Your task to perform on an android device: turn off notifications in google photos Image 0: 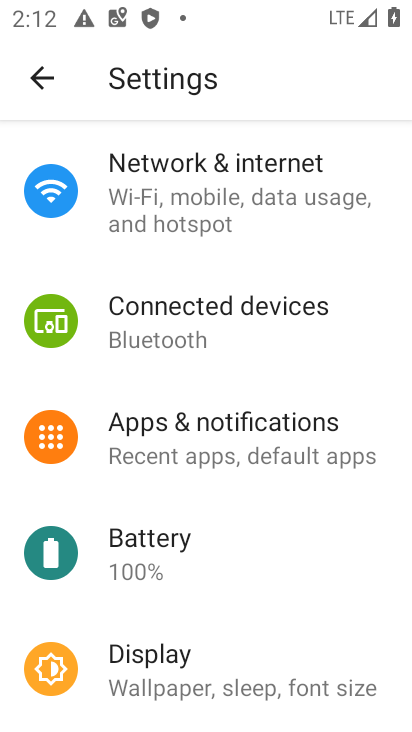
Step 0: press home button
Your task to perform on an android device: turn off notifications in google photos Image 1: 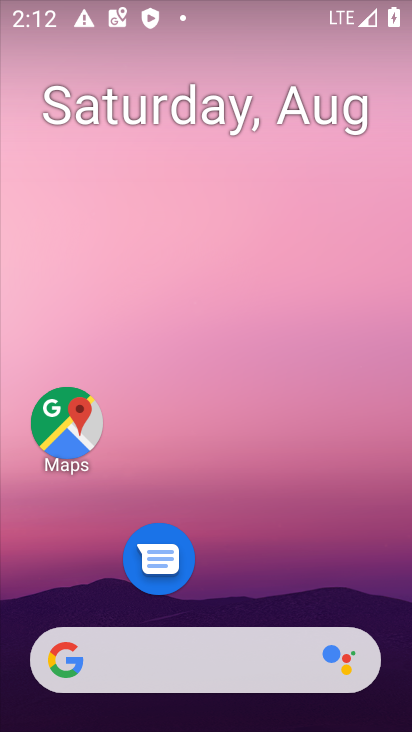
Step 1: drag from (223, 624) to (207, 470)
Your task to perform on an android device: turn off notifications in google photos Image 2: 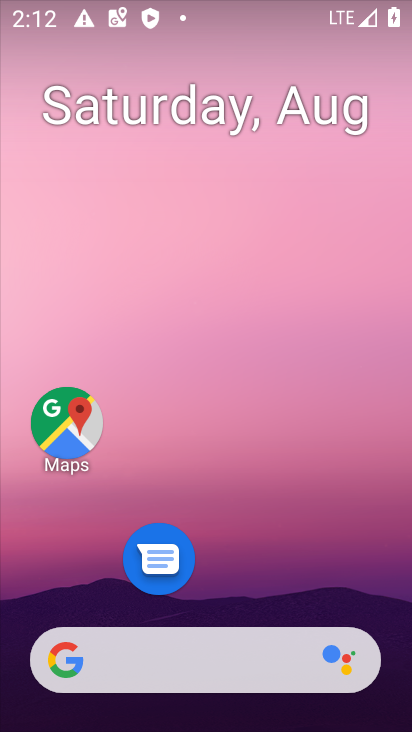
Step 2: drag from (206, 604) to (100, 83)
Your task to perform on an android device: turn off notifications in google photos Image 3: 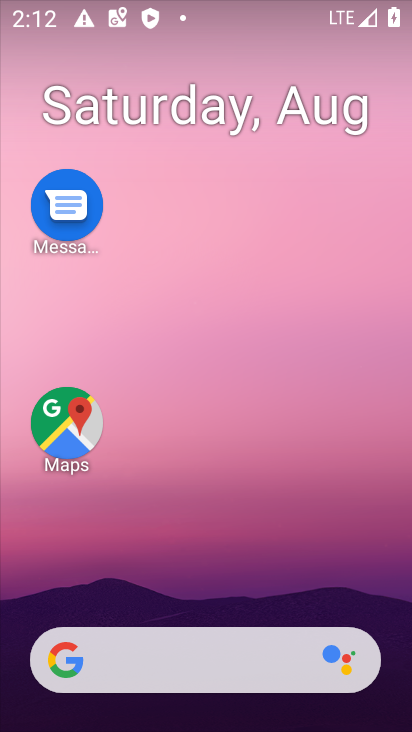
Step 3: drag from (297, 612) to (209, 119)
Your task to perform on an android device: turn off notifications in google photos Image 4: 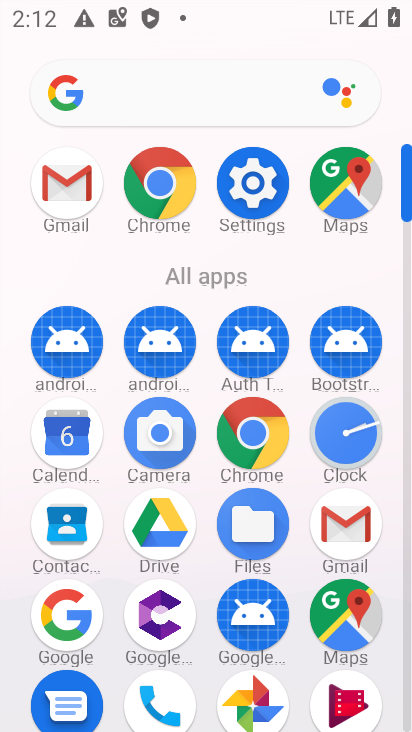
Step 4: click (229, 720)
Your task to perform on an android device: turn off notifications in google photos Image 5: 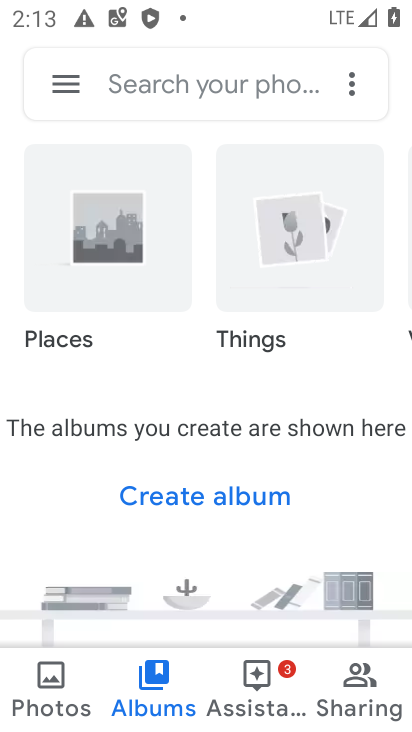
Step 5: click (59, 88)
Your task to perform on an android device: turn off notifications in google photos Image 6: 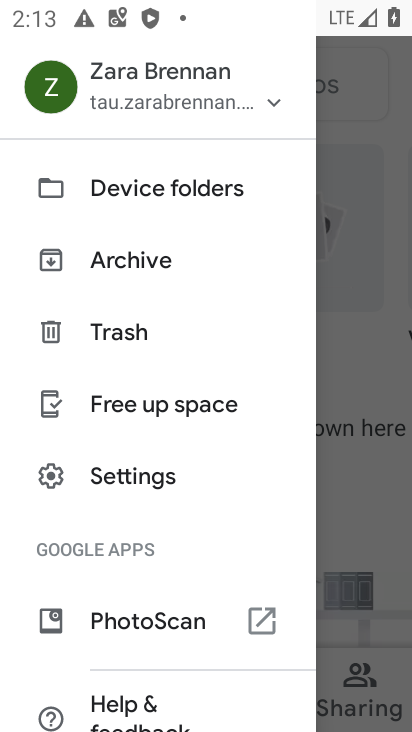
Step 6: drag from (140, 630) to (170, 286)
Your task to perform on an android device: turn off notifications in google photos Image 7: 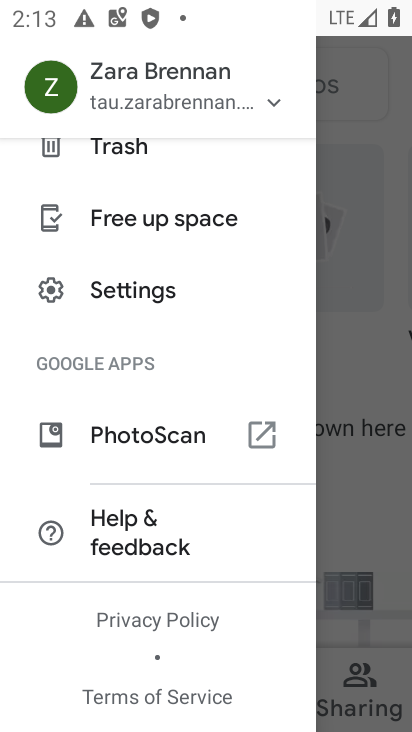
Step 7: click (155, 281)
Your task to perform on an android device: turn off notifications in google photos Image 8: 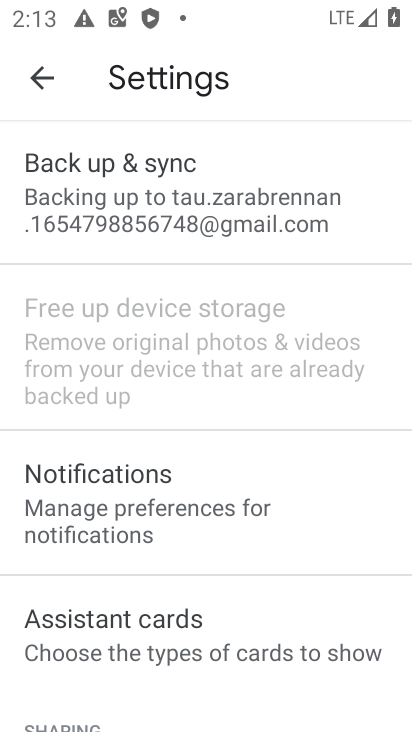
Step 8: click (127, 484)
Your task to perform on an android device: turn off notifications in google photos Image 9: 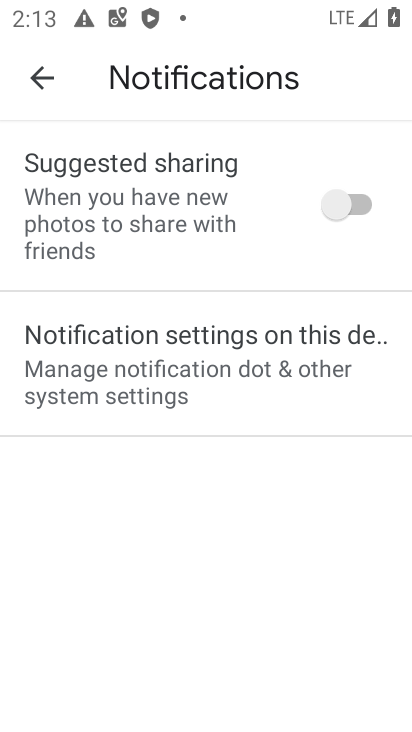
Step 9: click (135, 337)
Your task to perform on an android device: turn off notifications in google photos Image 10: 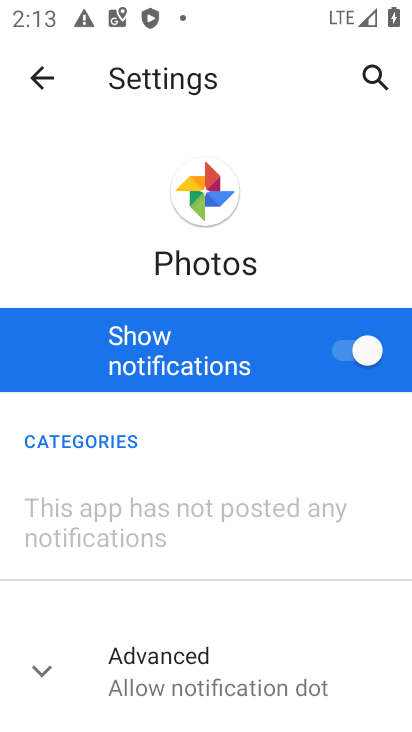
Step 10: click (394, 367)
Your task to perform on an android device: turn off notifications in google photos Image 11: 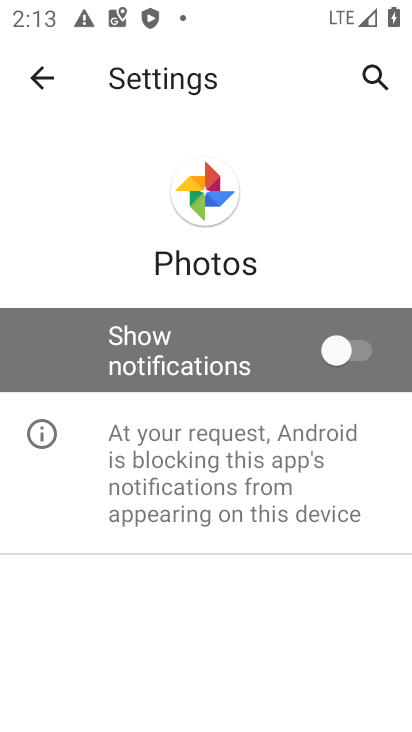
Step 11: task complete